Your task to perform on an android device: Open Android settings Image 0: 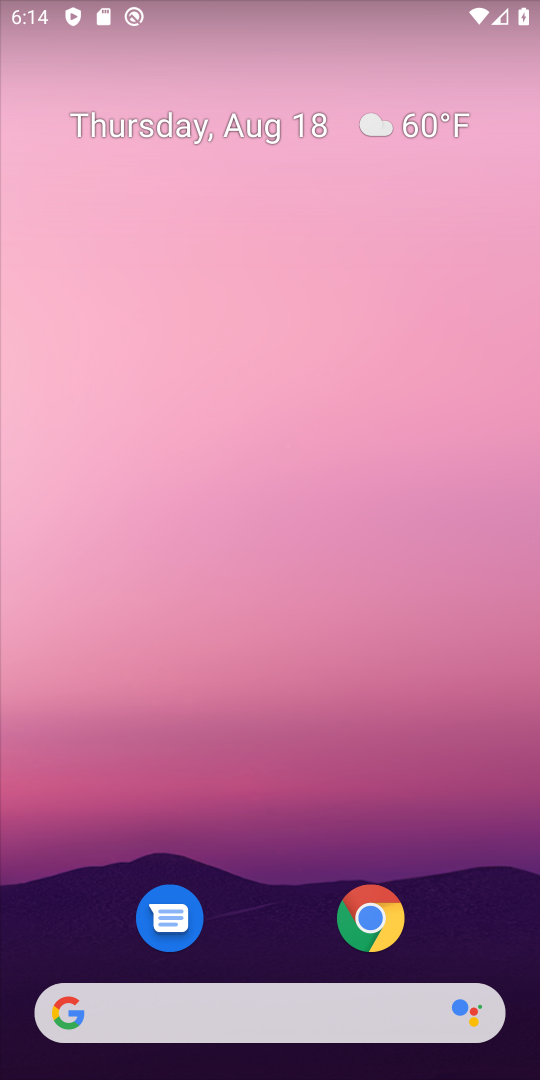
Step 0: drag from (299, 873) to (293, 76)
Your task to perform on an android device: Open Android settings Image 1: 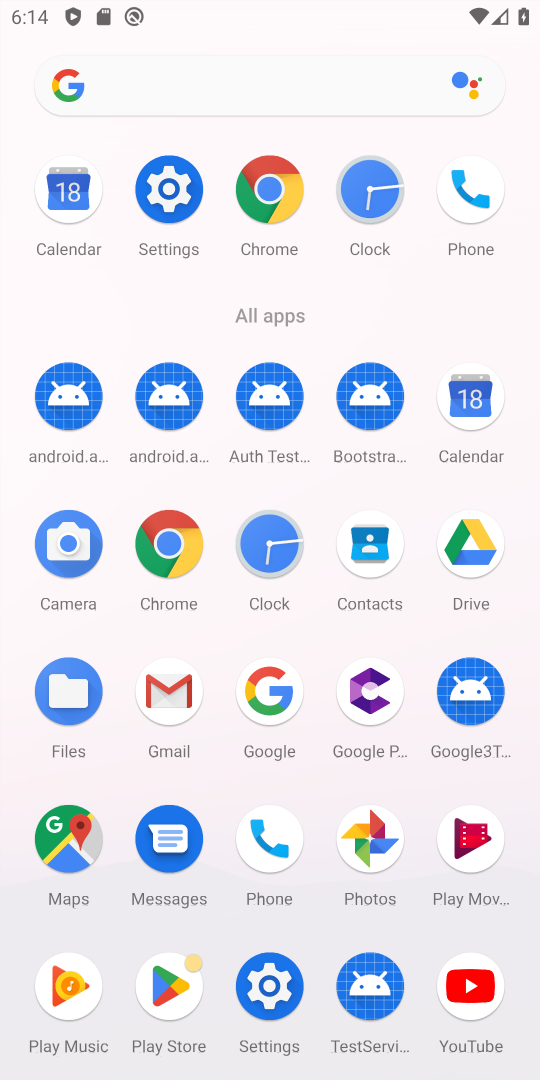
Step 1: click (163, 216)
Your task to perform on an android device: Open Android settings Image 2: 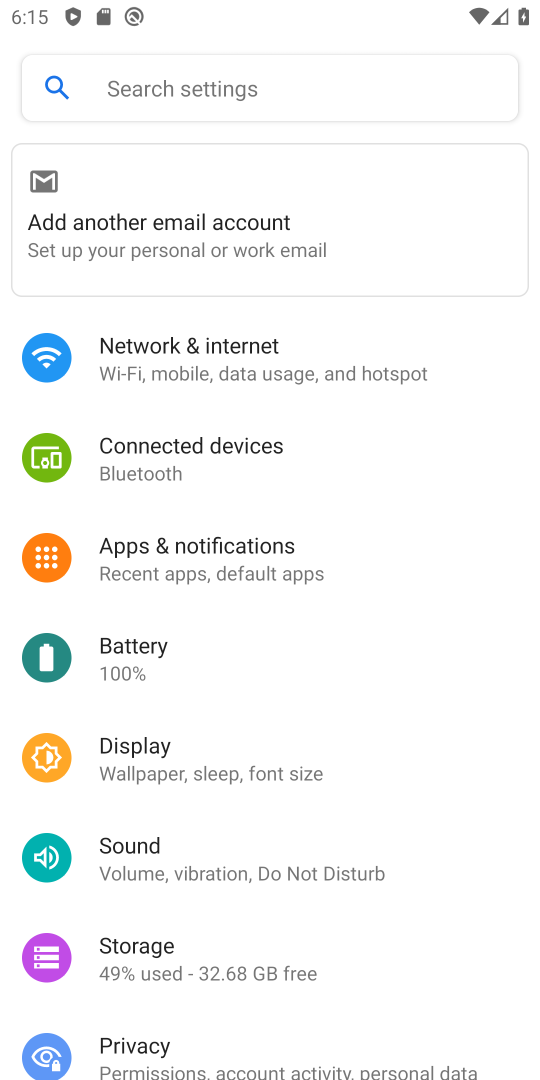
Step 2: task complete